Your task to perform on an android device: Search for "bose soundlink" on costco, select the first entry, add it to the cart, then select checkout. Image 0: 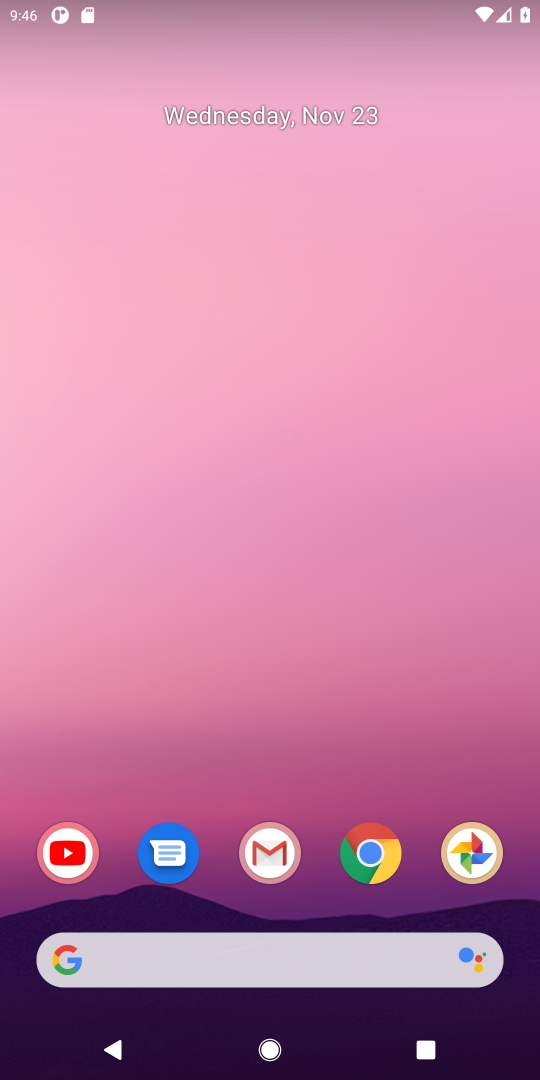
Step 0: click (370, 848)
Your task to perform on an android device: Search for "bose soundlink" on costco, select the first entry, add it to the cart, then select checkout. Image 1: 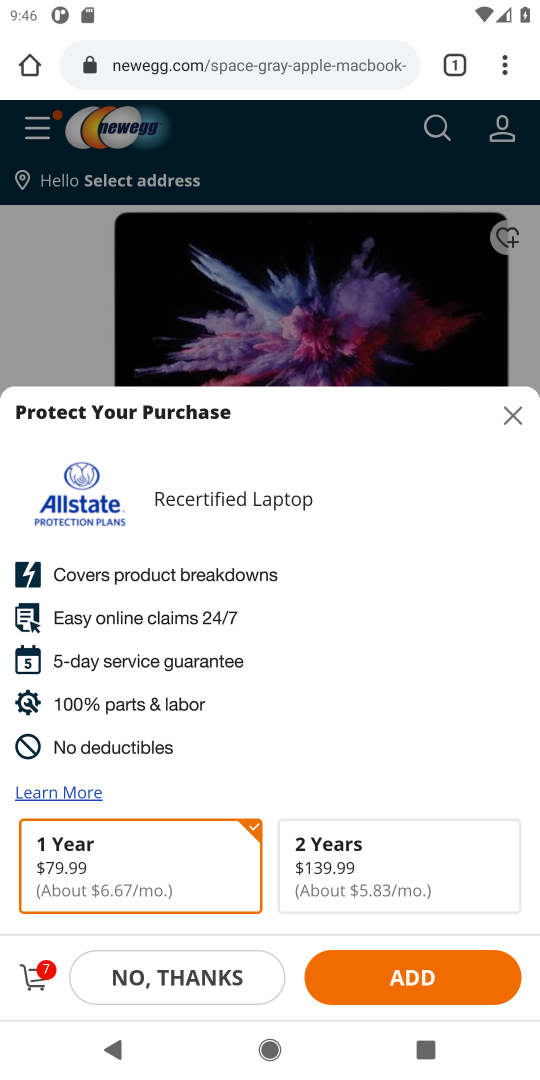
Step 1: click (254, 67)
Your task to perform on an android device: Search for "bose soundlink" on costco, select the first entry, add it to the cart, then select checkout. Image 2: 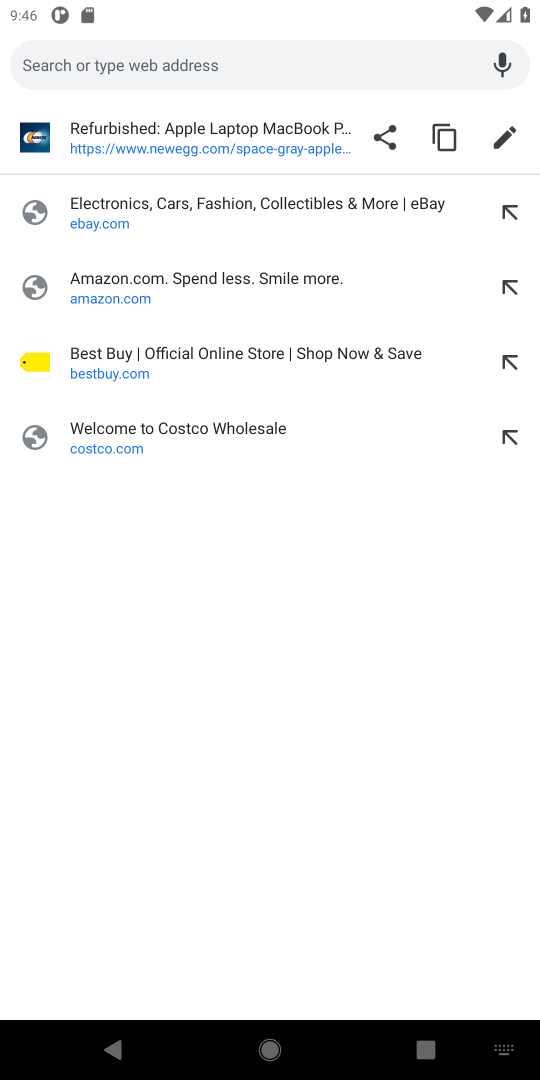
Step 2: click (81, 456)
Your task to perform on an android device: Search for "bose soundlink" on costco, select the first entry, add it to the cart, then select checkout. Image 3: 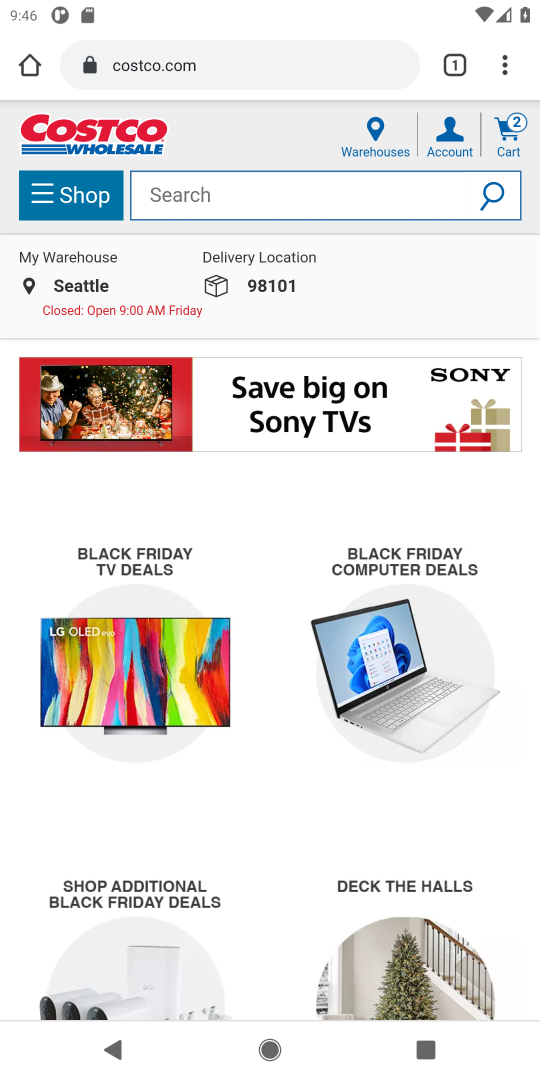
Step 3: click (239, 186)
Your task to perform on an android device: Search for "bose soundlink" on costco, select the first entry, add it to the cart, then select checkout. Image 4: 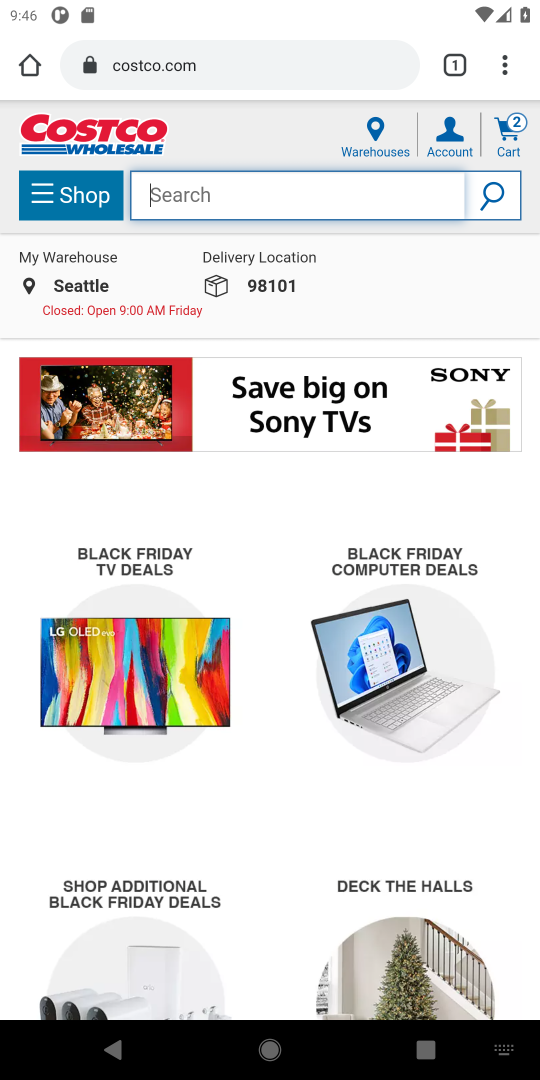
Step 4: type "bose soundlink"
Your task to perform on an android device: Search for "bose soundlink" on costco, select the first entry, add it to the cart, then select checkout. Image 5: 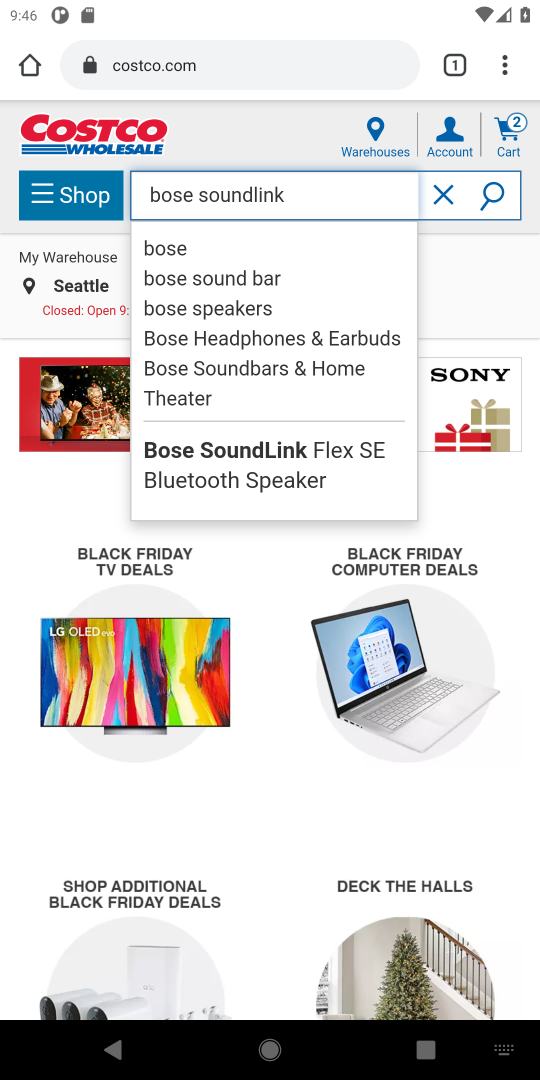
Step 5: click (488, 201)
Your task to perform on an android device: Search for "bose soundlink" on costco, select the first entry, add it to the cart, then select checkout. Image 6: 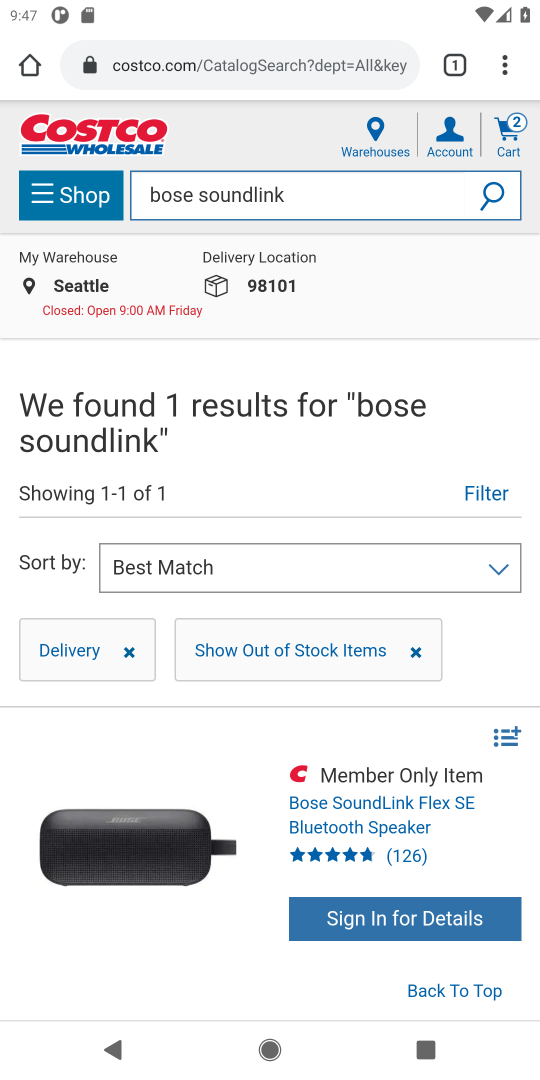
Step 6: drag from (206, 867) to (213, 623)
Your task to perform on an android device: Search for "bose soundlink" on costco, select the first entry, add it to the cart, then select checkout. Image 7: 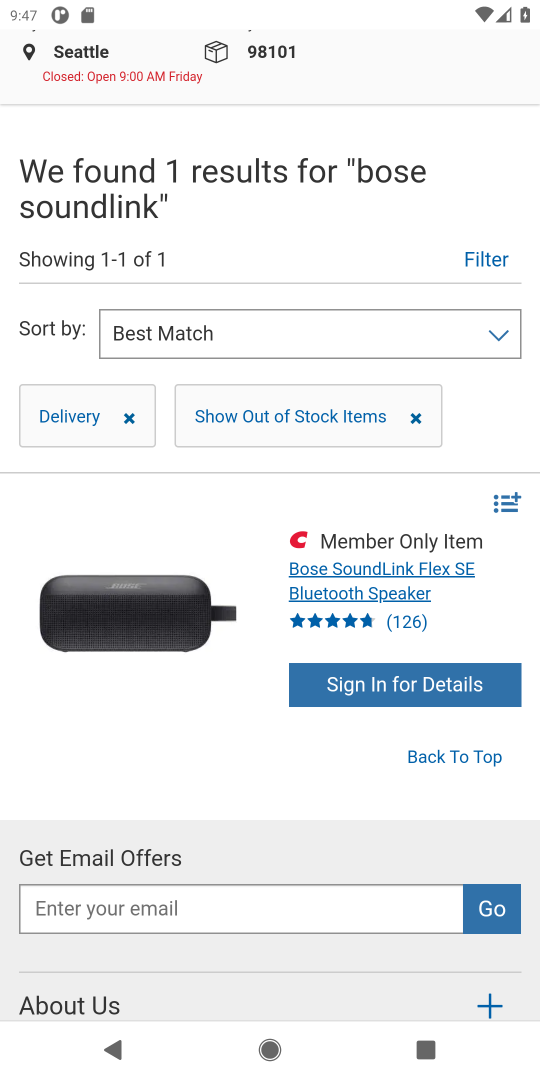
Step 7: click (177, 634)
Your task to perform on an android device: Search for "bose soundlink" on costco, select the first entry, add it to the cart, then select checkout. Image 8: 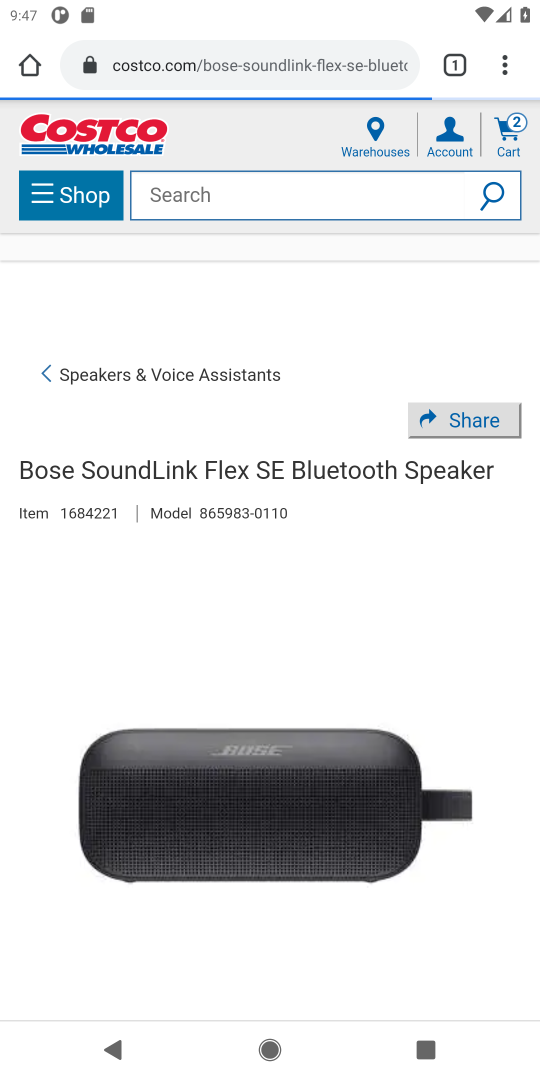
Step 8: task complete